Your task to perform on an android device: Open Maps and search for coffee Image 0: 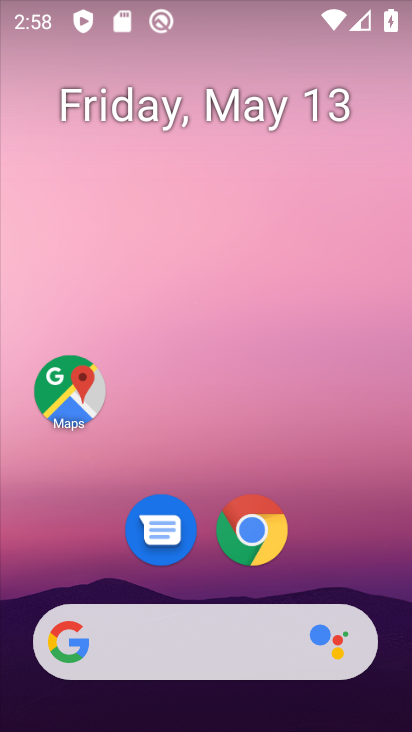
Step 0: click (80, 385)
Your task to perform on an android device: Open Maps and search for coffee Image 1: 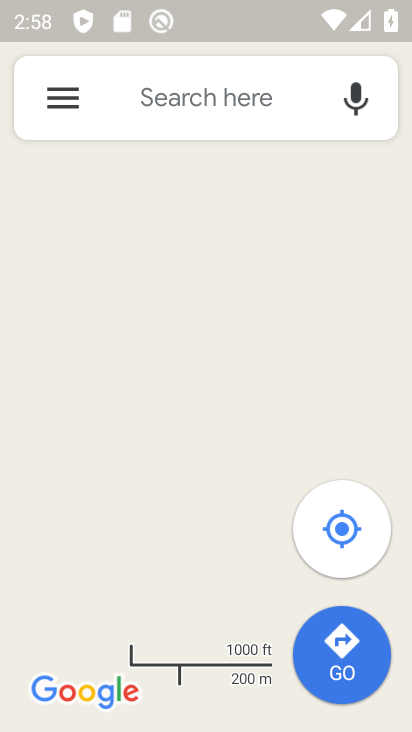
Step 1: click (204, 98)
Your task to perform on an android device: Open Maps and search for coffee Image 2: 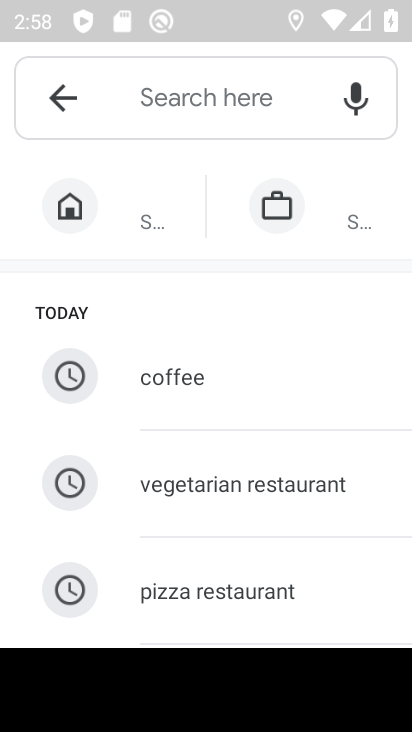
Step 2: click (195, 378)
Your task to perform on an android device: Open Maps and search for coffee Image 3: 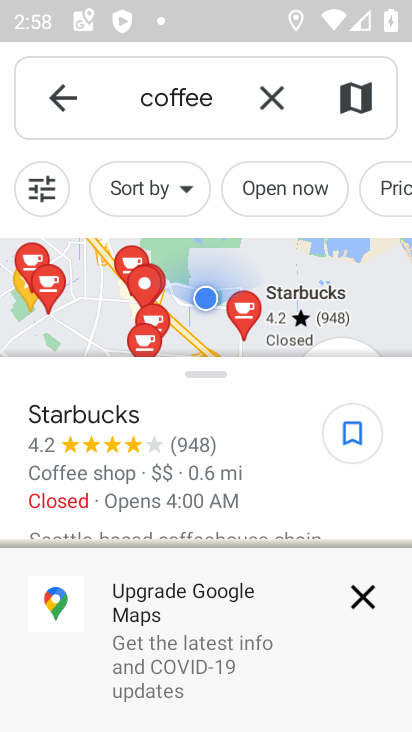
Step 3: task complete